Your task to perform on an android device: open app "Adobe Acrobat Reader" (install if not already installed) Image 0: 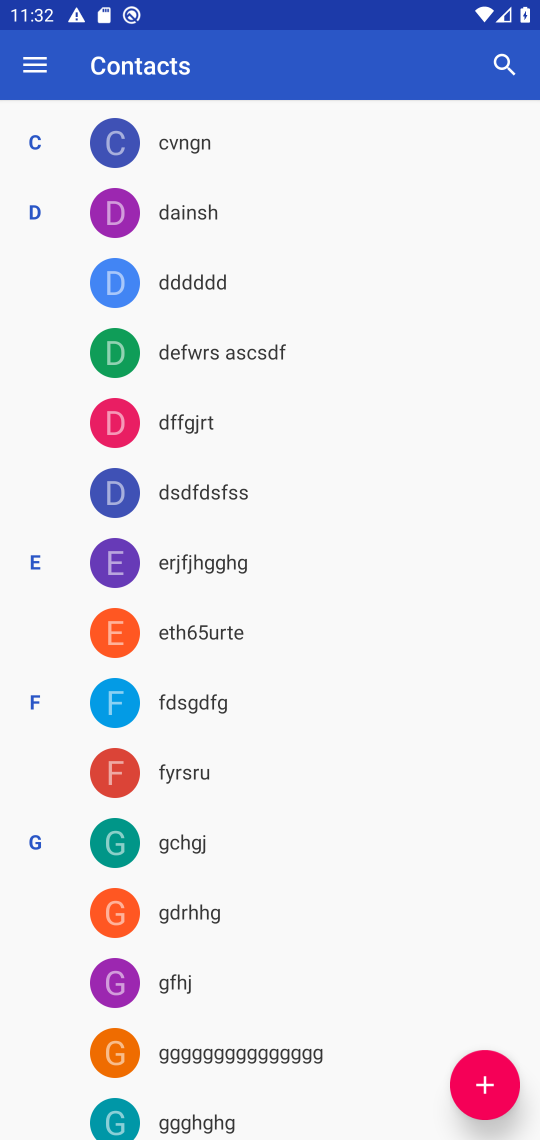
Step 0: press home button
Your task to perform on an android device: open app "Adobe Acrobat Reader" (install if not already installed) Image 1: 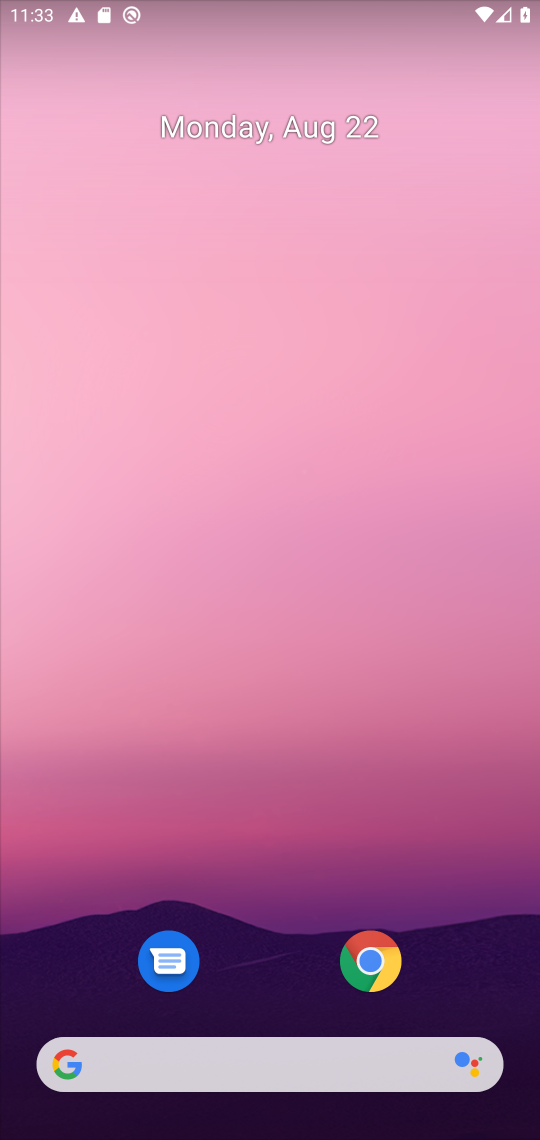
Step 1: drag from (262, 1008) to (356, 17)
Your task to perform on an android device: open app "Adobe Acrobat Reader" (install if not already installed) Image 2: 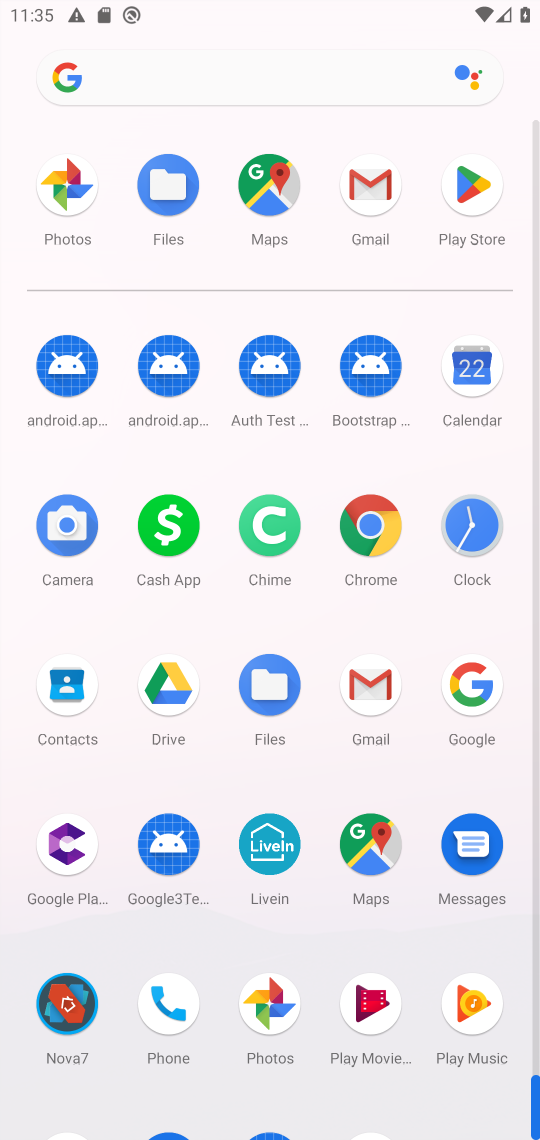
Step 2: click (453, 232)
Your task to perform on an android device: open app "Adobe Acrobat Reader" (install if not already installed) Image 3: 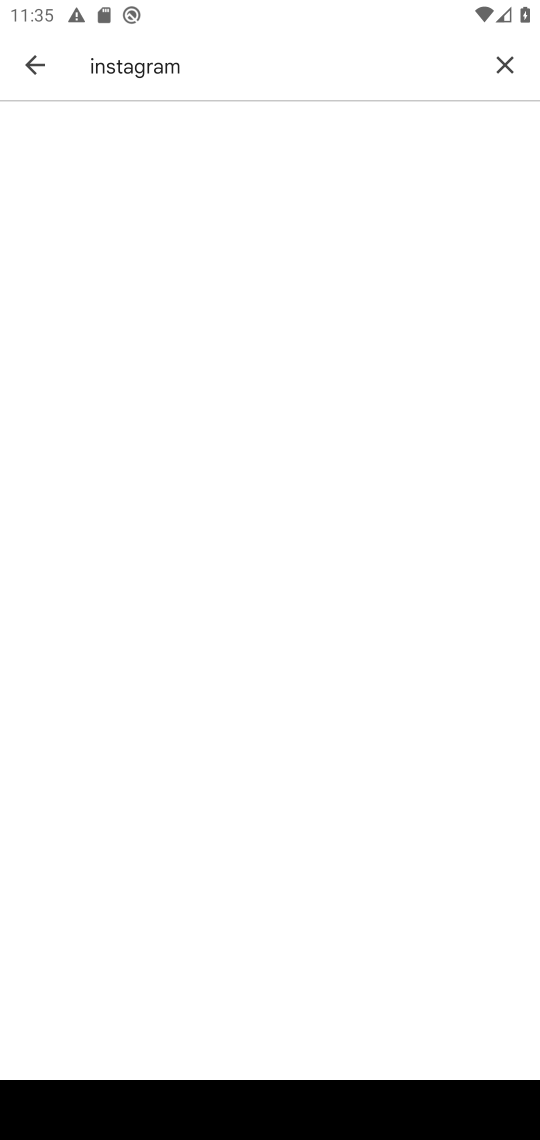
Step 3: click (500, 75)
Your task to perform on an android device: open app "Adobe Acrobat Reader" (install if not already installed) Image 4: 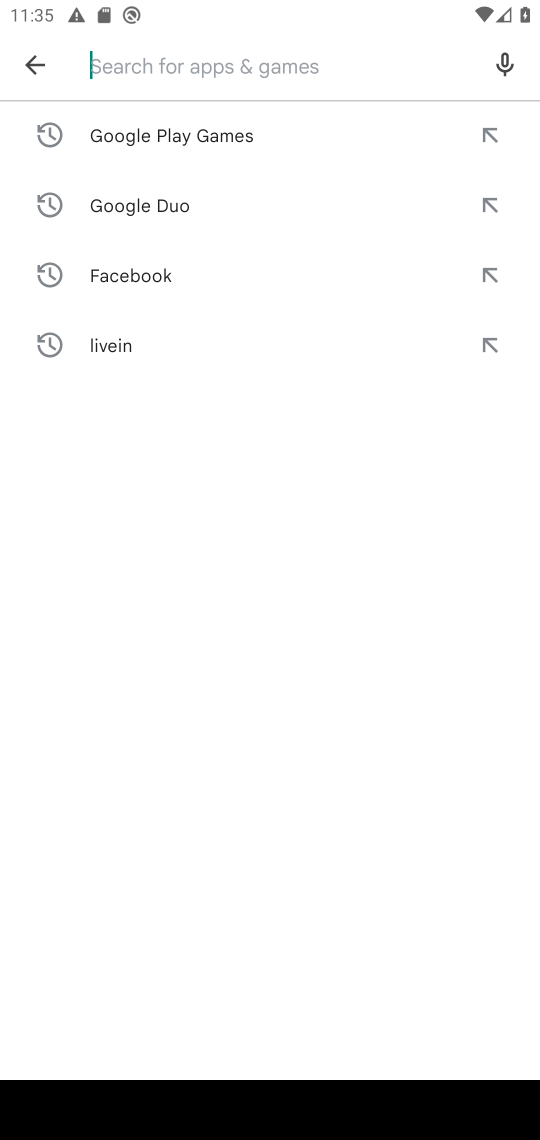
Step 4: type "adobe"
Your task to perform on an android device: open app "Adobe Acrobat Reader" (install if not already installed) Image 5: 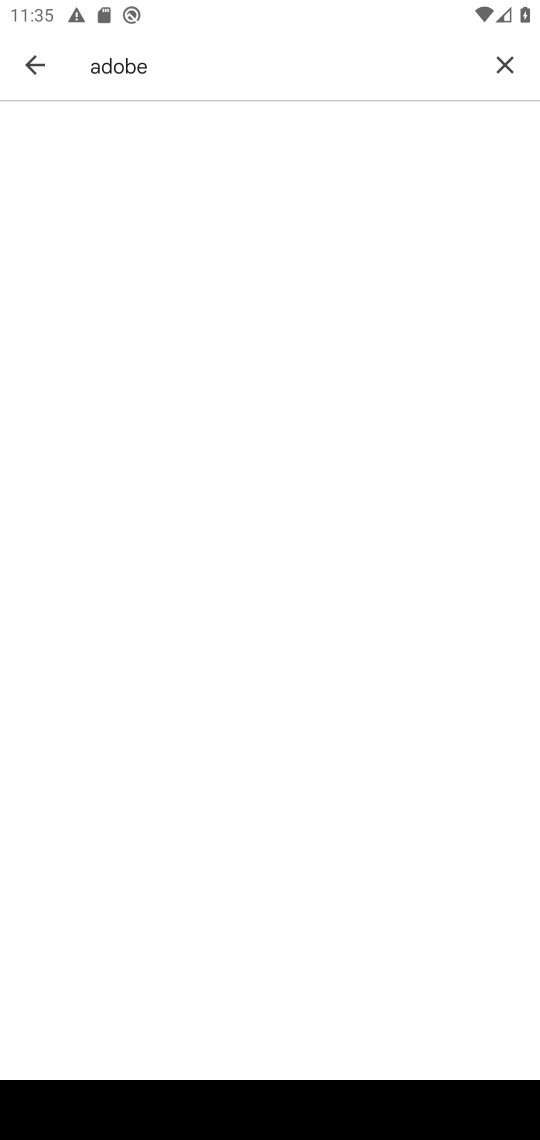
Step 5: task complete